Your task to perform on an android device: turn on javascript in the chrome app Image 0: 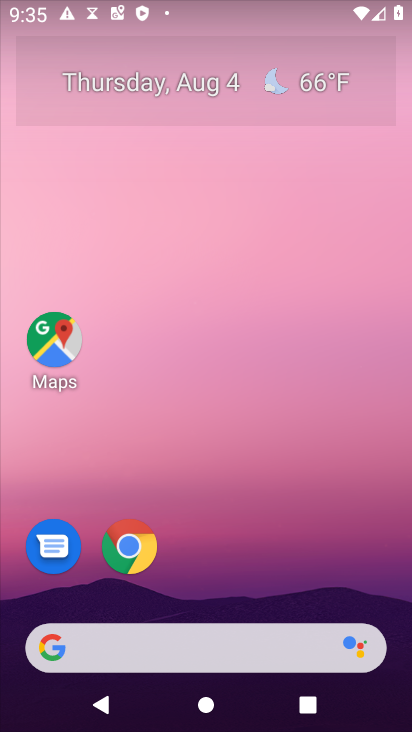
Step 0: press home button
Your task to perform on an android device: turn on javascript in the chrome app Image 1: 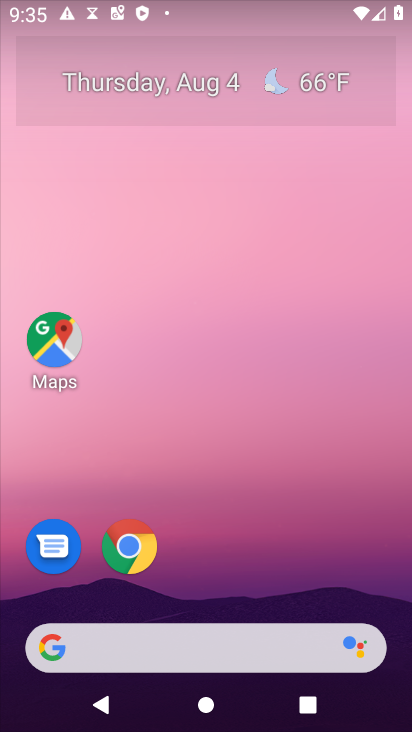
Step 1: click (134, 549)
Your task to perform on an android device: turn on javascript in the chrome app Image 2: 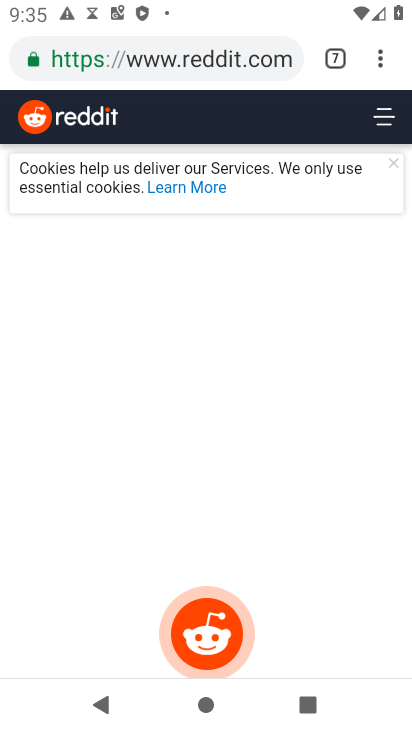
Step 2: drag from (380, 66) to (189, 566)
Your task to perform on an android device: turn on javascript in the chrome app Image 3: 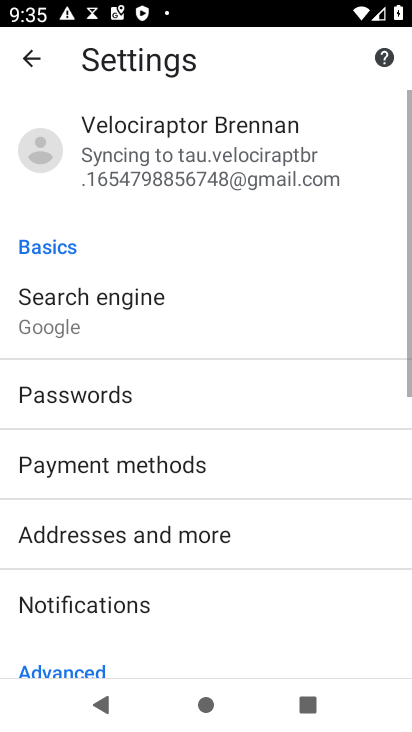
Step 3: drag from (308, 599) to (303, 166)
Your task to perform on an android device: turn on javascript in the chrome app Image 4: 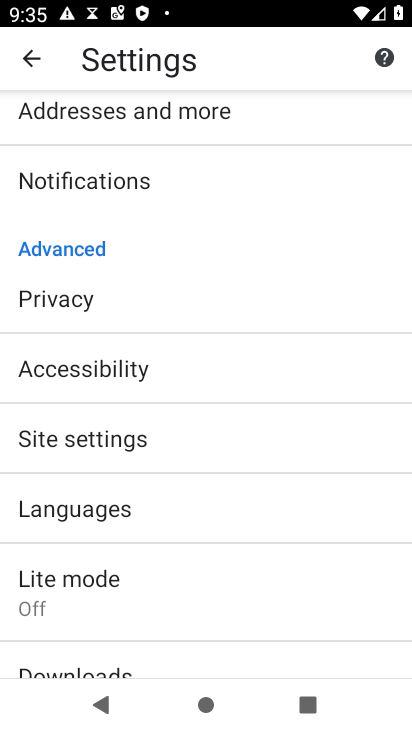
Step 4: click (68, 438)
Your task to perform on an android device: turn on javascript in the chrome app Image 5: 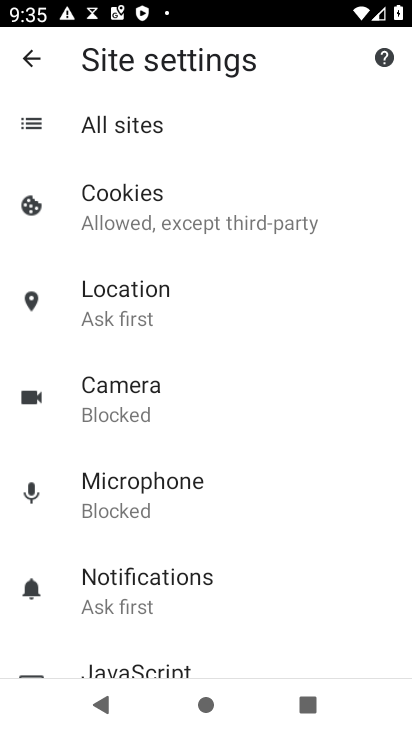
Step 5: drag from (267, 628) to (243, 368)
Your task to perform on an android device: turn on javascript in the chrome app Image 6: 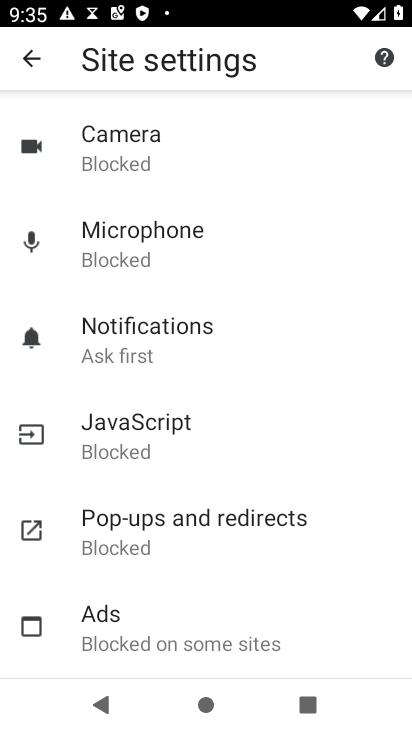
Step 6: click (130, 446)
Your task to perform on an android device: turn on javascript in the chrome app Image 7: 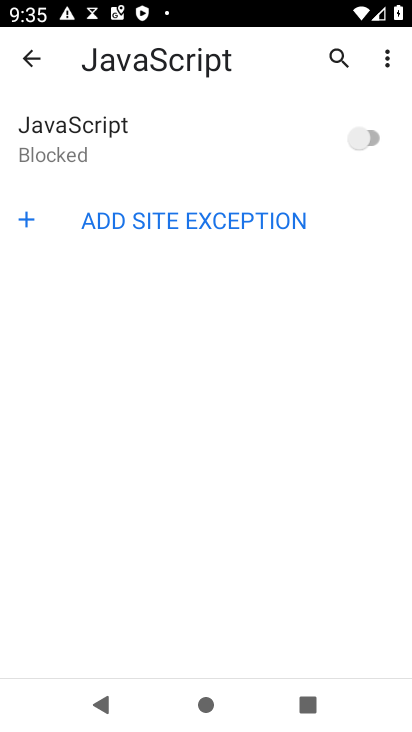
Step 7: click (365, 138)
Your task to perform on an android device: turn on javascript in the chrome app Image 8: 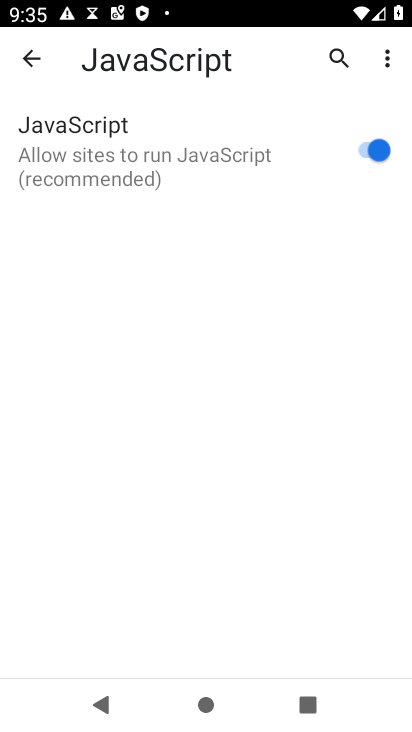
Step 8: task complete